Your task to perform on an android device: check data usage Image 0: 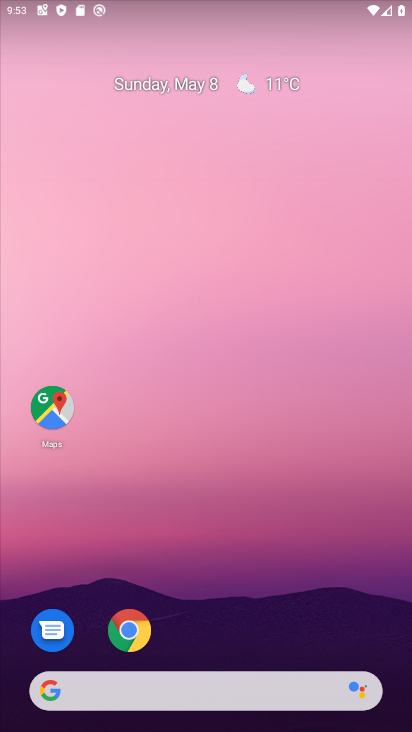
Step 0: drag from (332, 529) to (183, 24)
Your task to perform on an android device: check data usage Image 1: 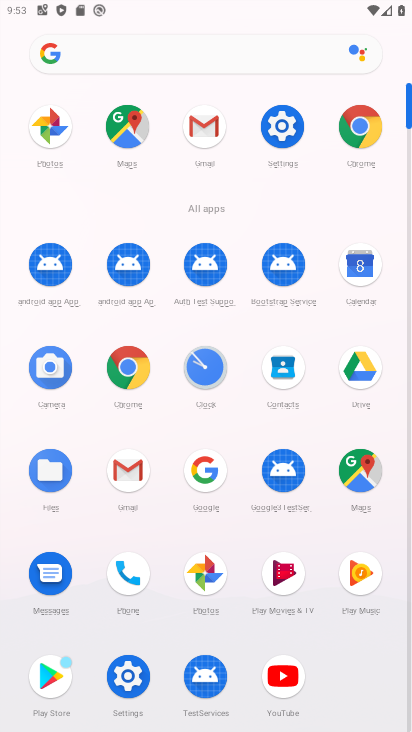
Step 1: click (118, 688)
Your task to perform on an android device: check data usage Image 2: 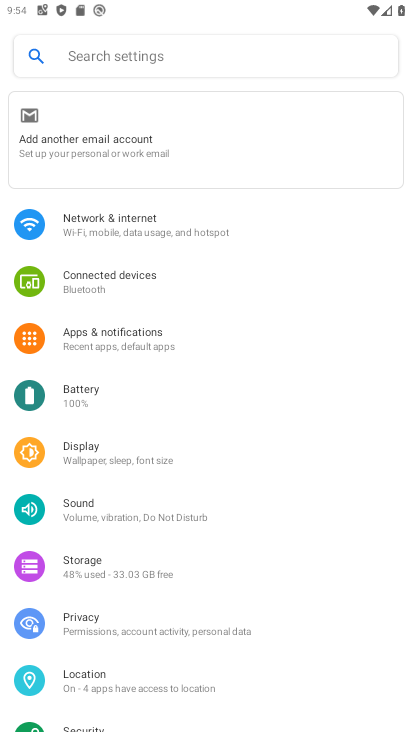
Step 2: click (150, 239)
Your task to perform on an android device: check data usage Image 3: 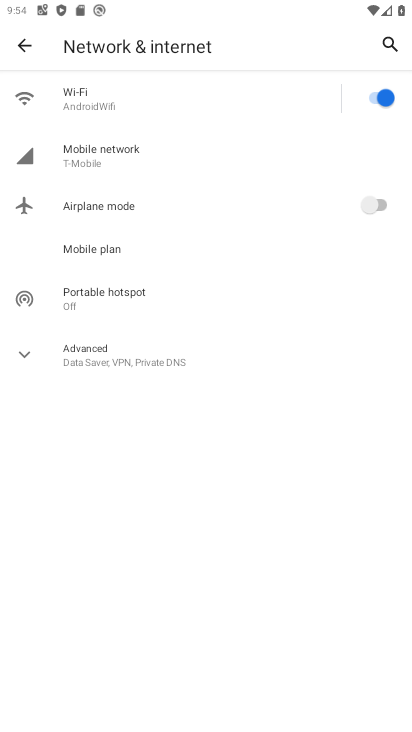
Step 3: click (30, 52)
Your task to perform on an android device: check data usage Image 4: 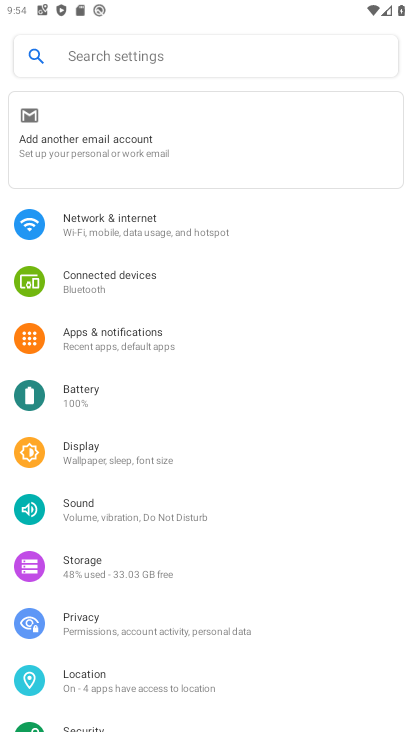
Step 4: click (185, 224)
Your task to perform on an android device: check data usage Image 5: 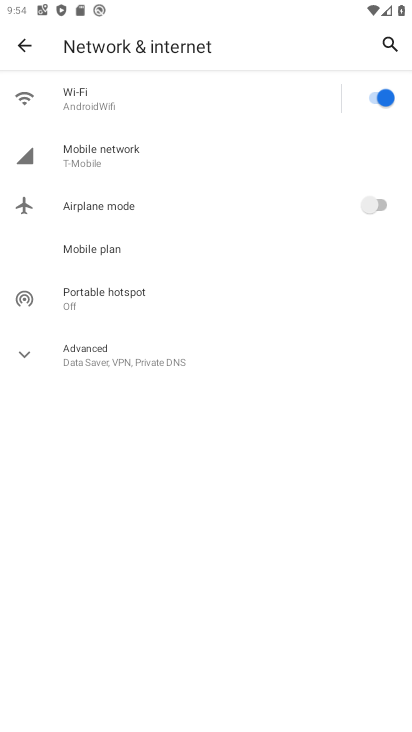
Step 5: click (119, 166)
Your task to perform on an android device: check data usage Image 6: 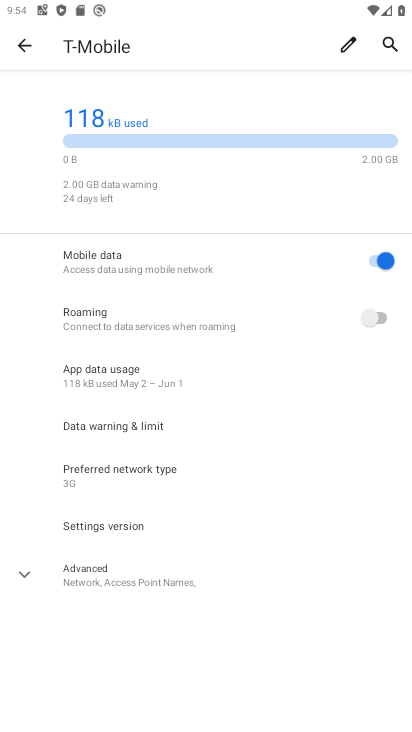
Step 6: click (158, 384)
Your task to perform on an android device: check data usage Image 7: 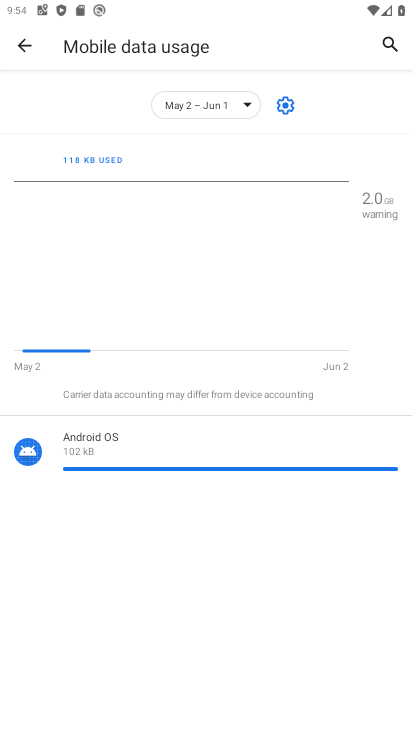
Step 7: task complete